Your task to perform on an android device: turn off javascript in the chrome app Image 0: 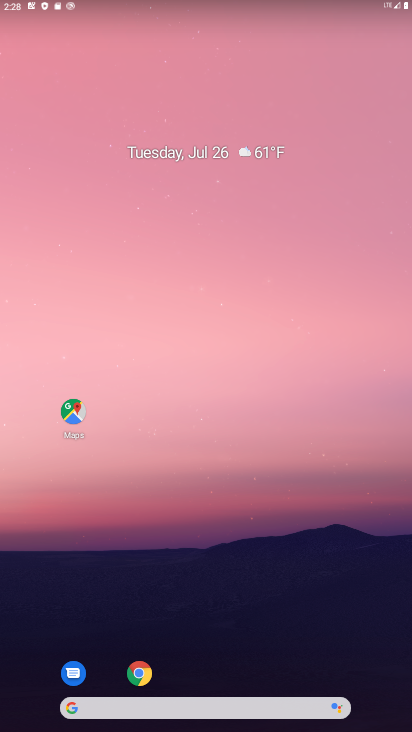
Step 0: drag from (172, 630) to (230, 209)
Your task to perform on an android device: turn off javascript in the chrome app Image 1: 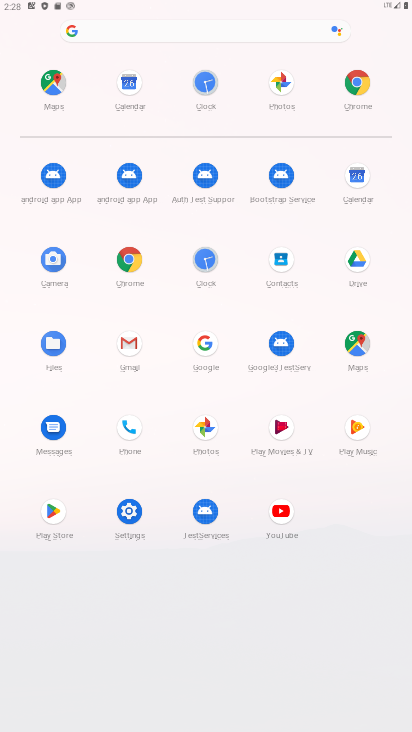
Step 1: click (127, 262)
Your task to perform on an android device: turn off javascript in the chrome app Image 2: 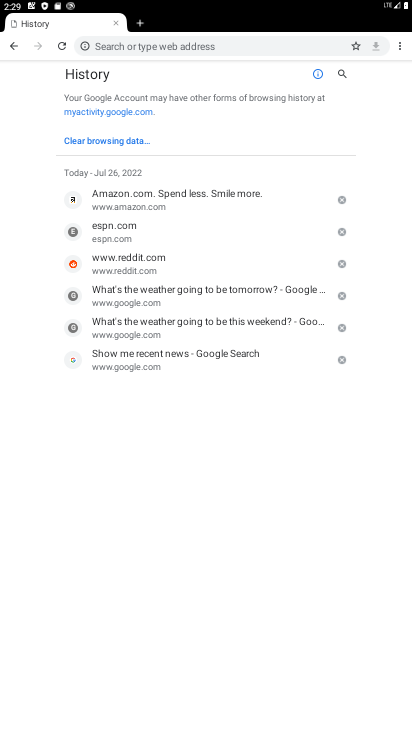
Step 2: drag from (403, 43) to (332, 213)
Your task to perform on an android device: turn off javascript in the chrome app Image 3: 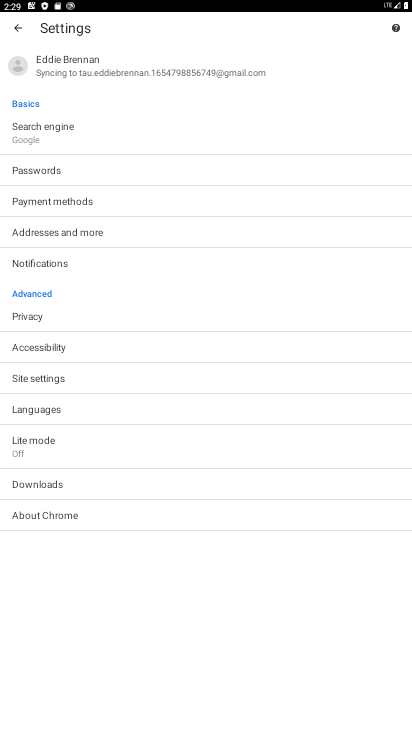
Step 3: click (47, 387)
Your task to perform on an android device: turn off javascript in the chrome app Image 4: 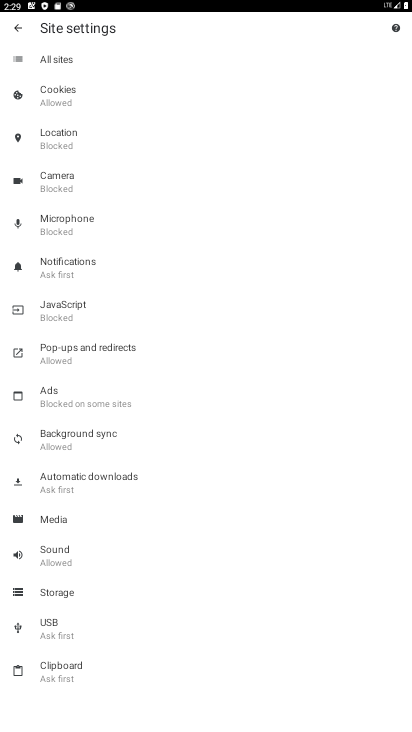
Step 4: click (96, 309)
Your task to perform on an android device: turn off javascript in the chrome app Image 5: 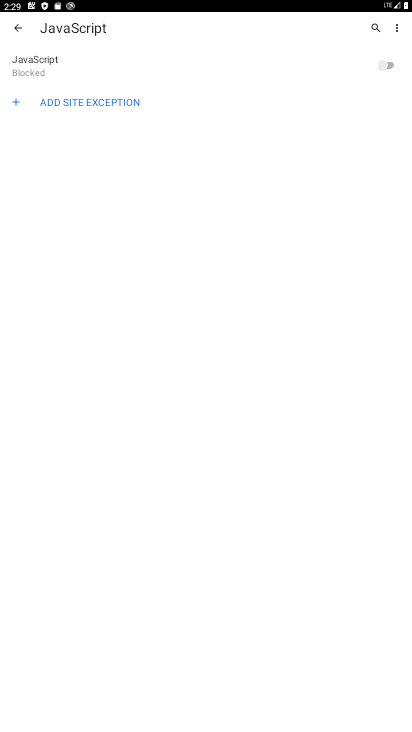
Step 5: task complete